Your task to perform on an android device: open app "AliExpress" Image 0: 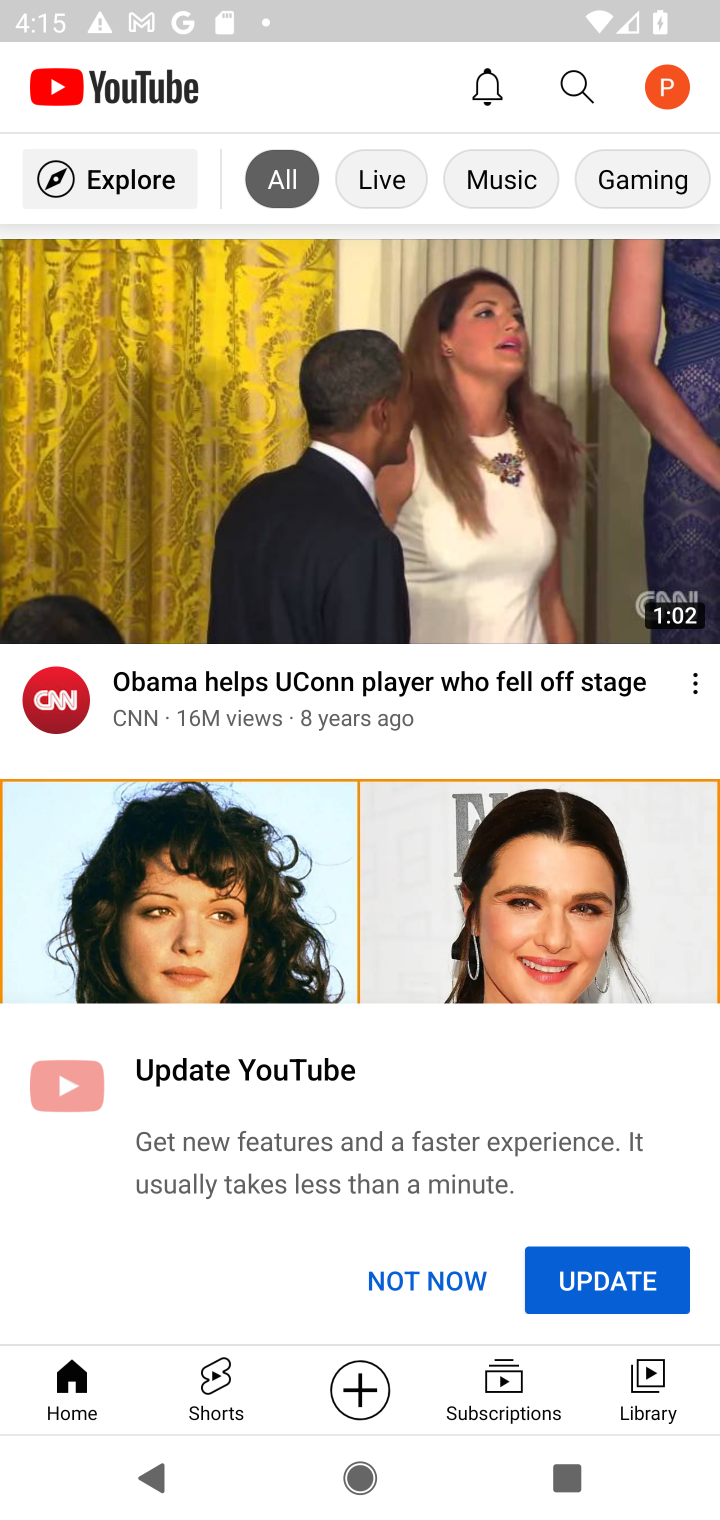
Step 0: press home button
Your task to perform on an android device: open app "AliExpress" Image 1: 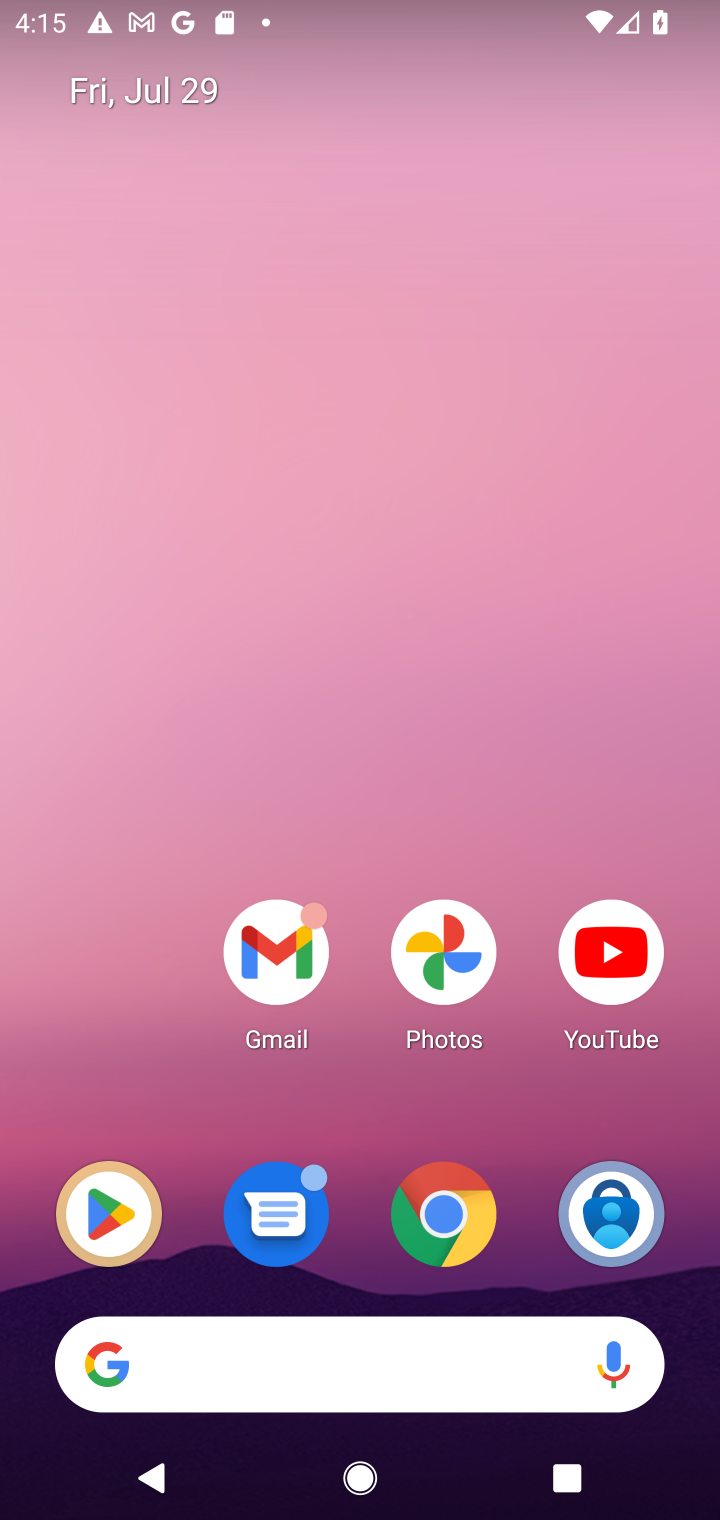
Step 1: click (119, 1235)
Your task to perform on an android device: open app "AliExpress" Image 2: 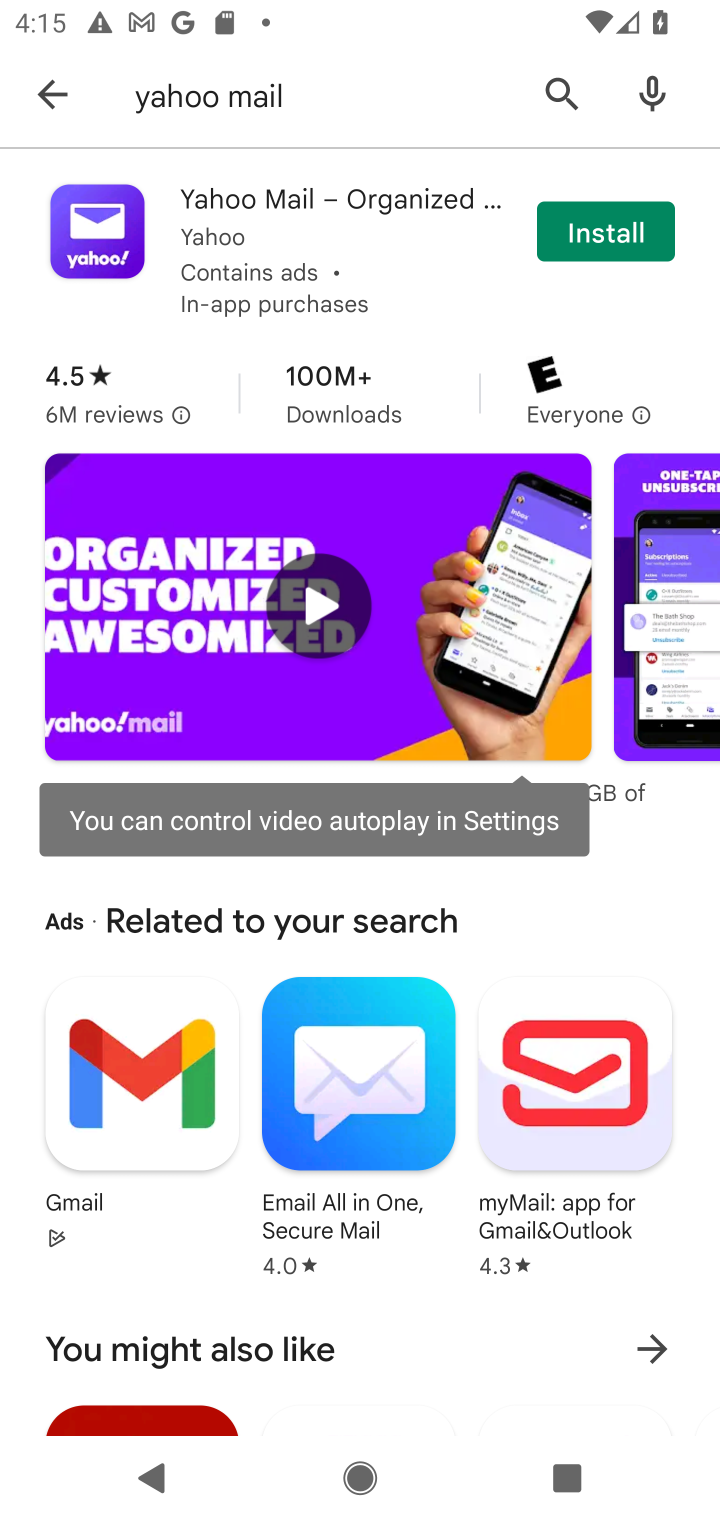
Step 2: click (327, 101)
Your task to perform on an android device: open app "AliExpress" Image 3: 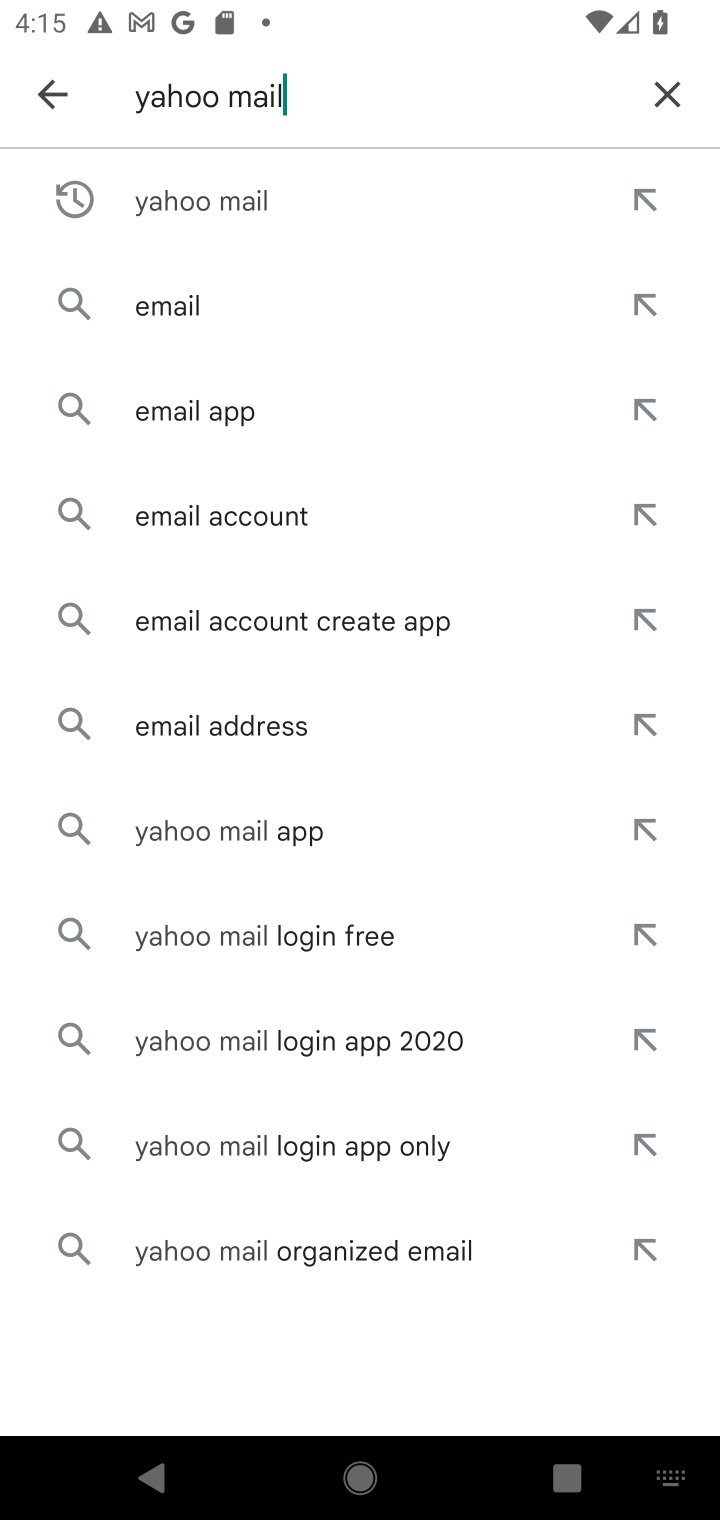
Step 3: click (666, 109)
Your task to perform on an android device: open app "AliExpress" Image 4: 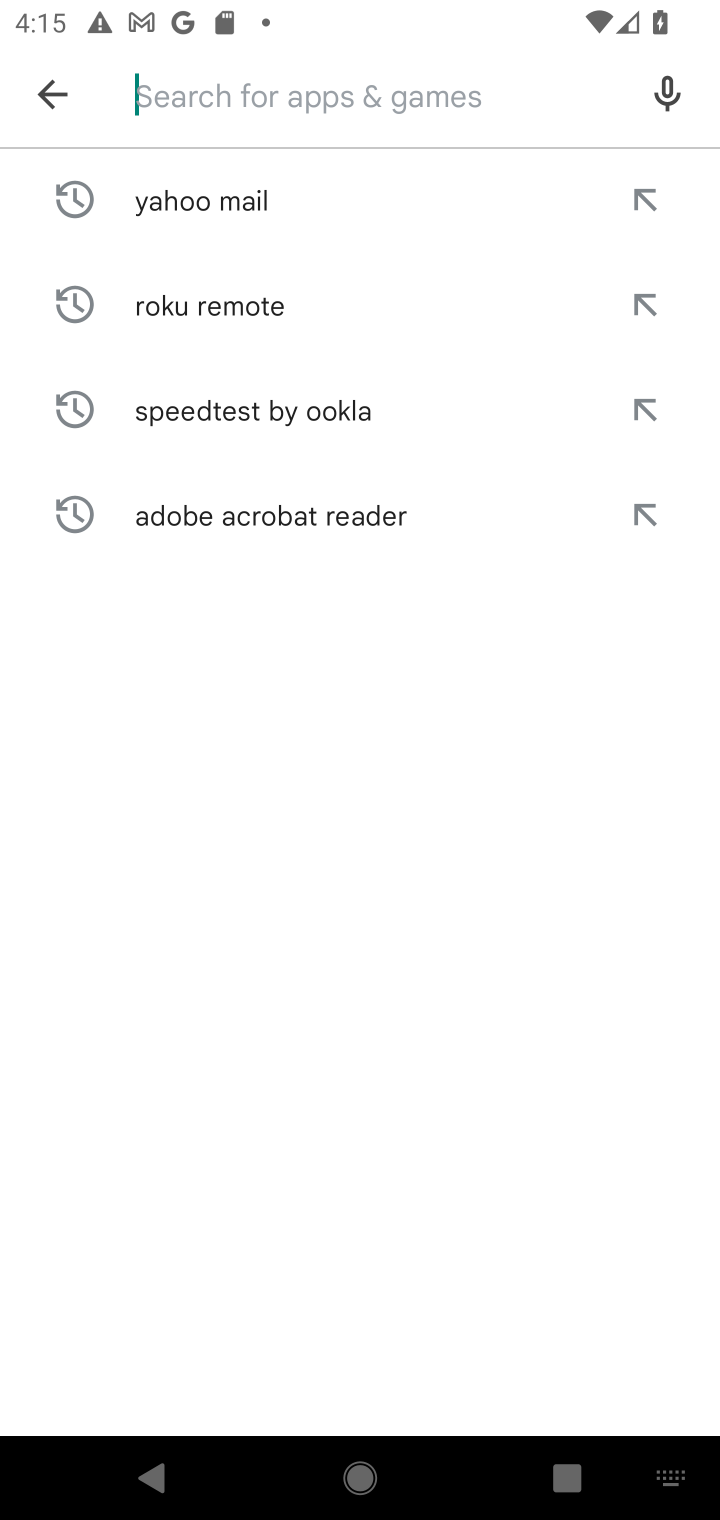
Step 4: type "Ali Express"
Your task to perform on an android device: open app "AliExpress" Image 5: 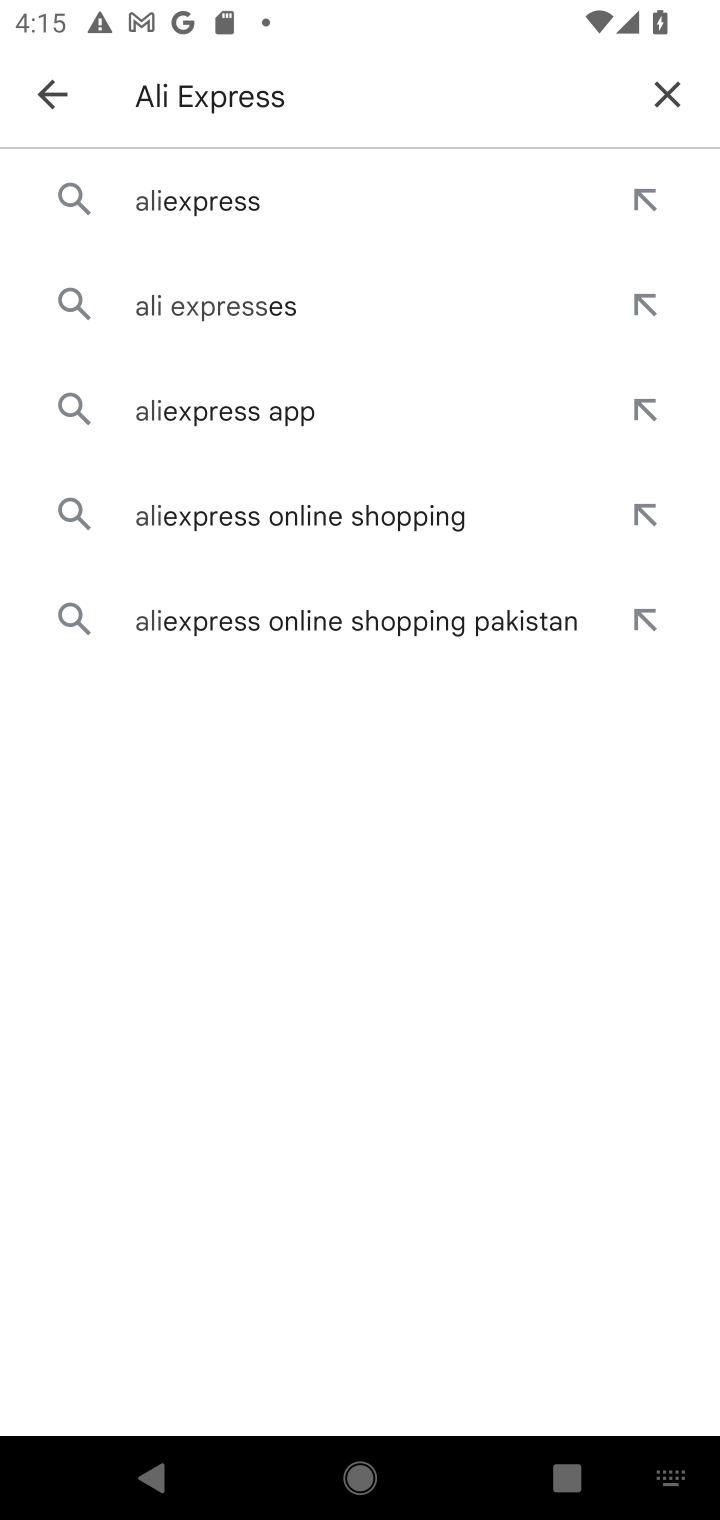
Step 5: click (248, 230)
Your task to perform on an android device: open app "AliExpress" Image 6: 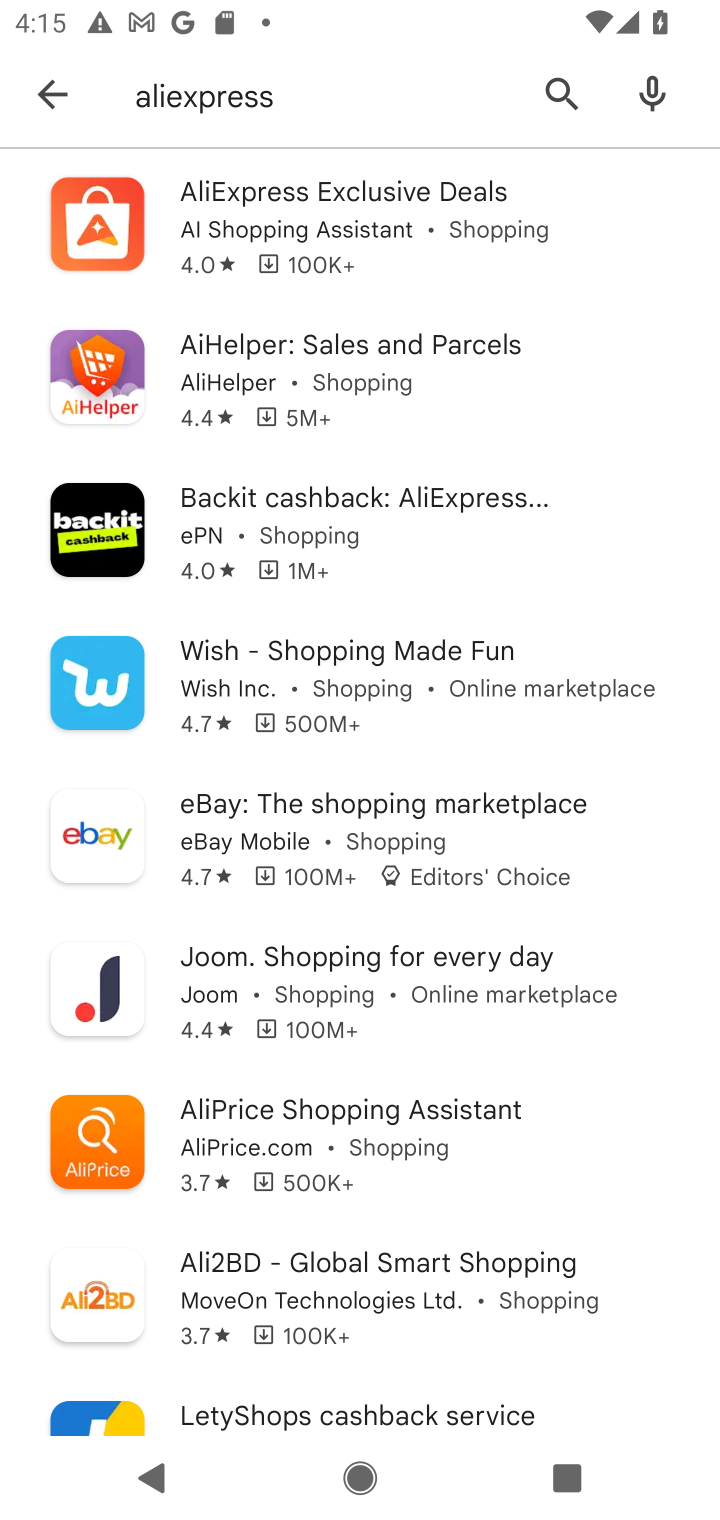
Step 6: click (280, 227)
Your task to perform on an android device: open app "AliExpress" Image 7: 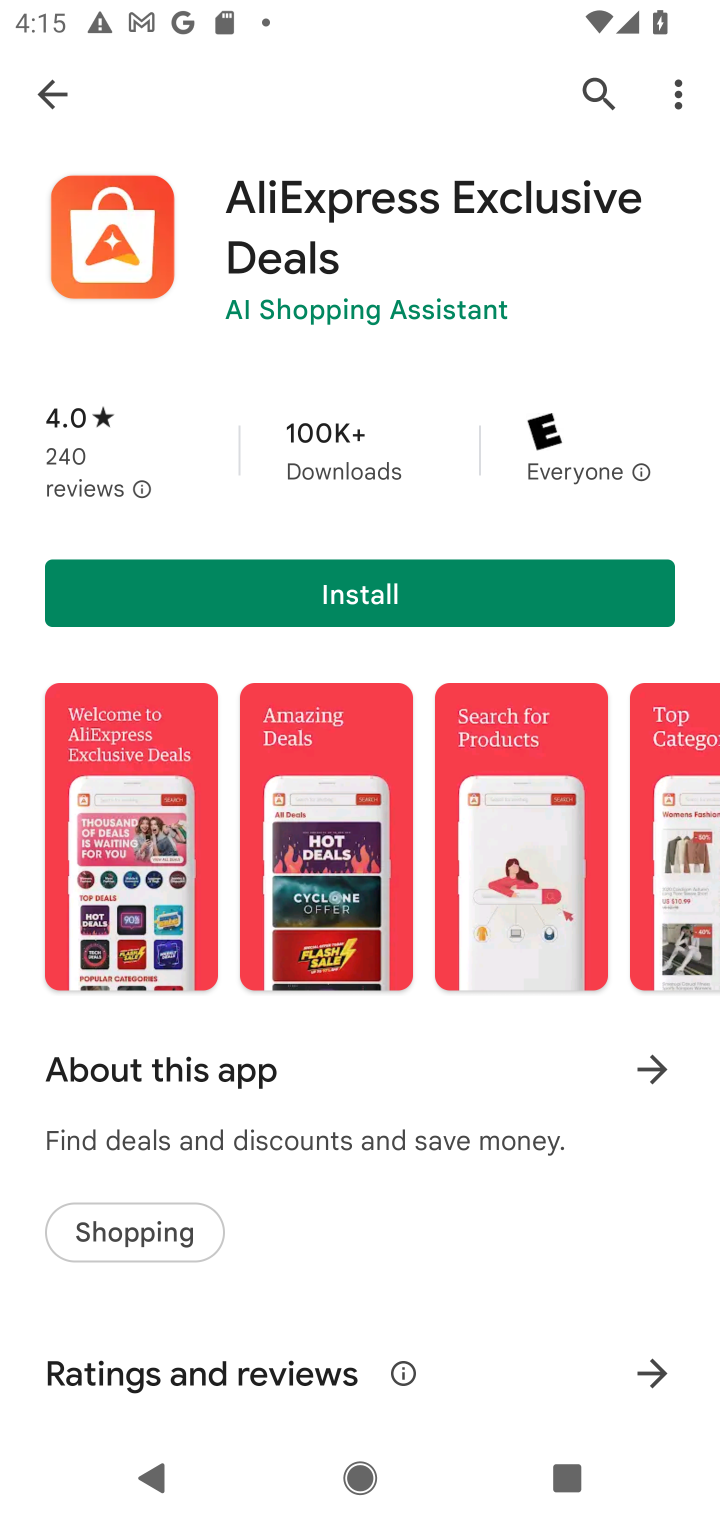
Step 7: task complete